Your task to perform on an android device: turn off javascript in the chrome app Image 0: 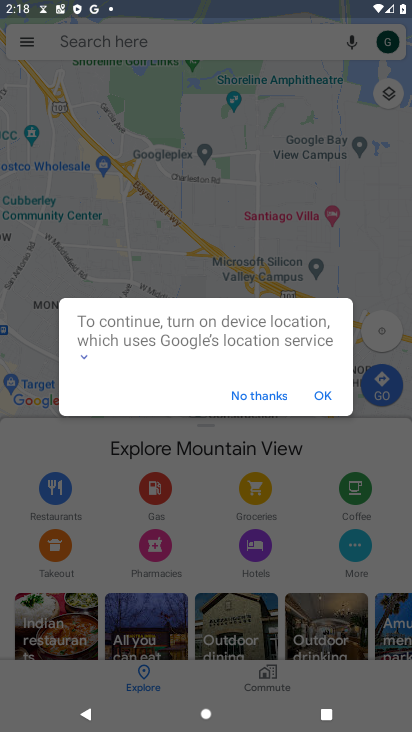
Step 0: press home button
Your task to perform on an android device: turn off javascript in the chrome app Image 1: 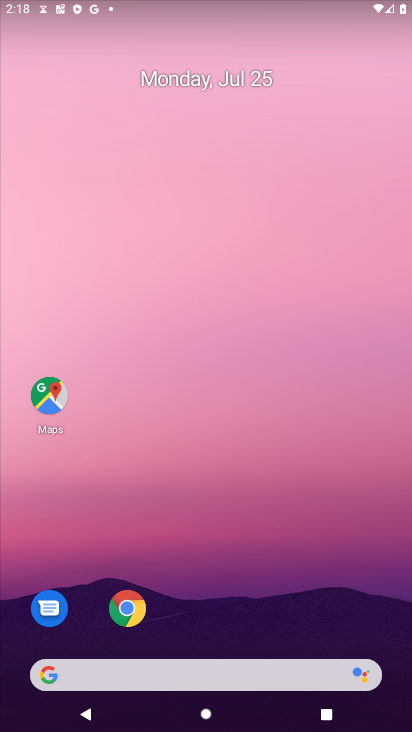
Step 1: click (126, 607)
Your task to perform on an android device: turn off javascript in the chrome app Image 2: 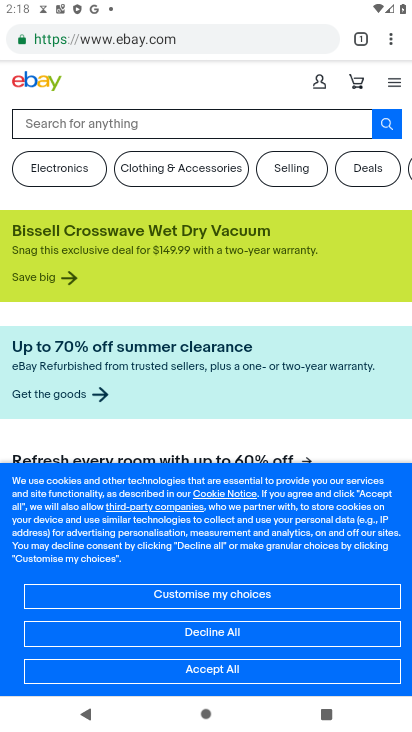
Step 2: click (392, 39)
Your task to perform on an android device: turn off javascript in the chrome app Image 3: 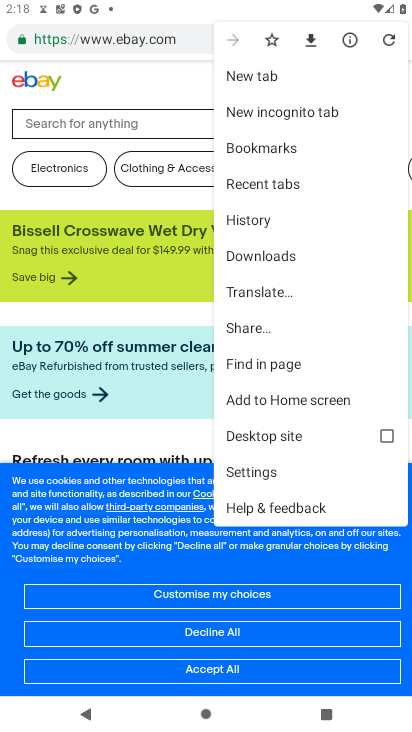
Step 3: click (236, 468)
Your task to perform on an android device: turn off javascript in the chrome app Image 4: 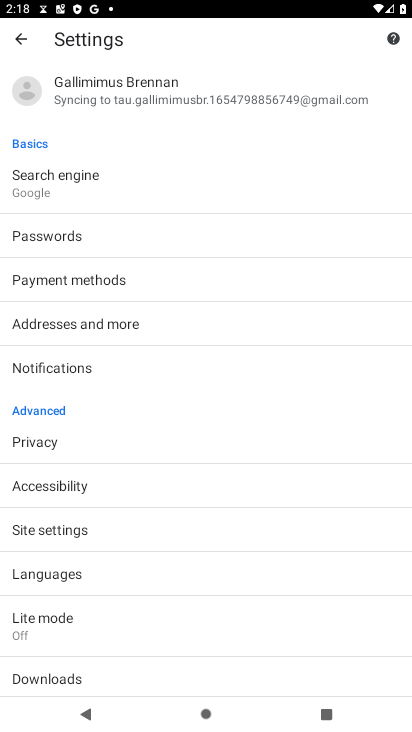
Step 4: click (56, 534)
Your task to perform on an android device: turn off javascript in the chrome app Image 5: 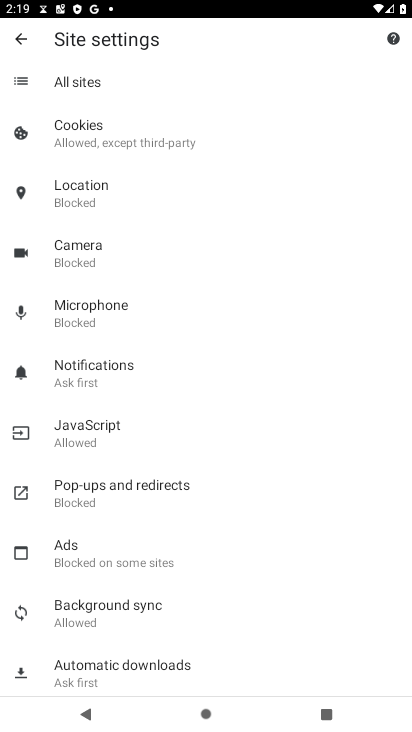
Step 5: click (89, 428)
Your task to perform on an android device: turn off javascript in the chrome app Image 6: 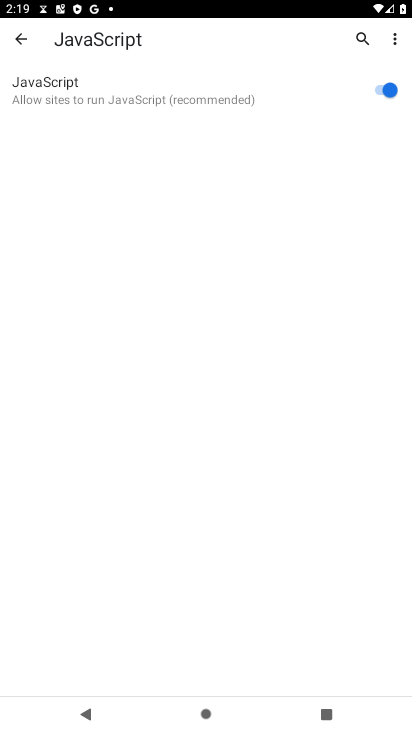
Step 6: click (381, 87)
Your task to perform on an android device: turn off javascript in the chrome app Image 7: 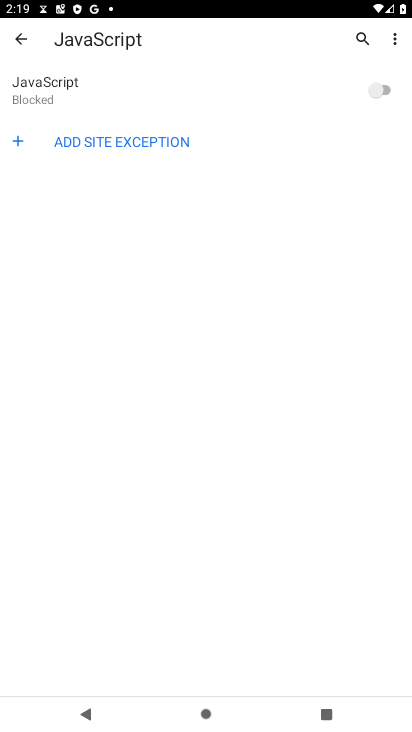
Step 7: task complete